Your task to perform on an android device: turn vacation reply on in the gmail app Image 0: 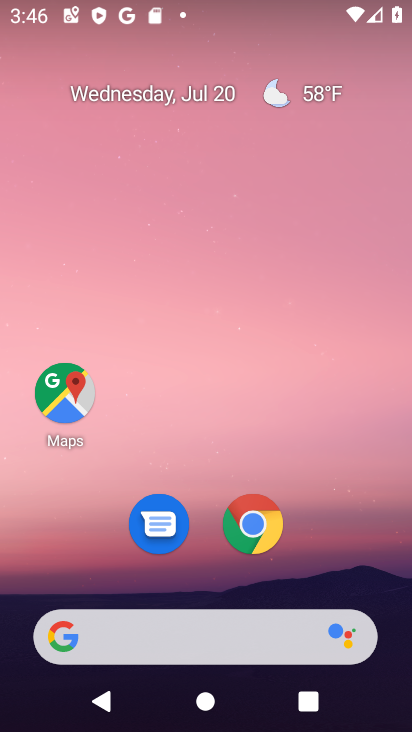
Step 0: drag from (330, 535) to (306, 18)
Your task to perform on an android device: turn vacation reply on in the gmail app Image 1: 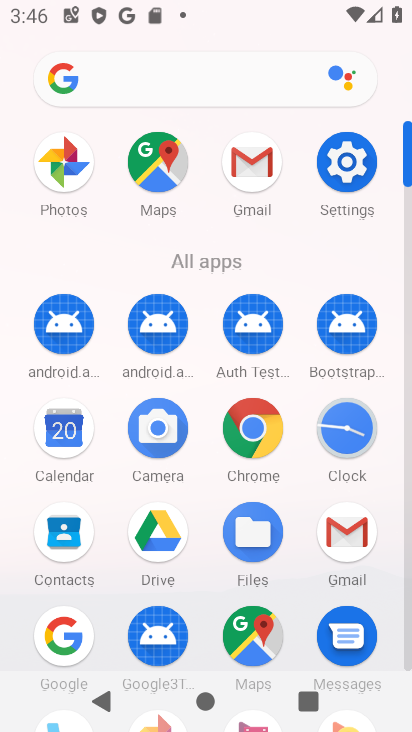
Step 1: click (266, 168)
Your task to perform on an android device: turn vacation reply on in the gmail app Image 2: 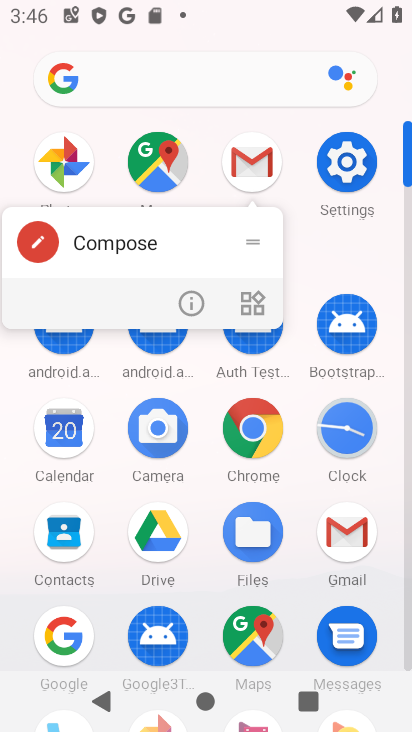
Step 2: click (266, 163)
Your task to perform on an android device: turn vacation reply on in the gmail app Image 3: 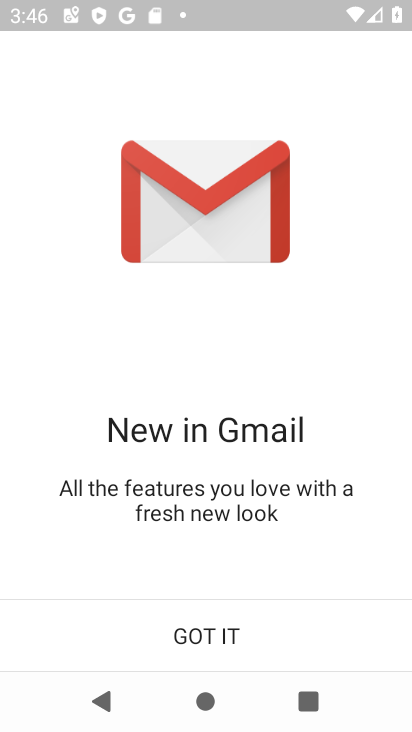
Step 3: click (216, 637)
Your task to perform on an android device: turn vacation reply on in the gmail app Image 4: 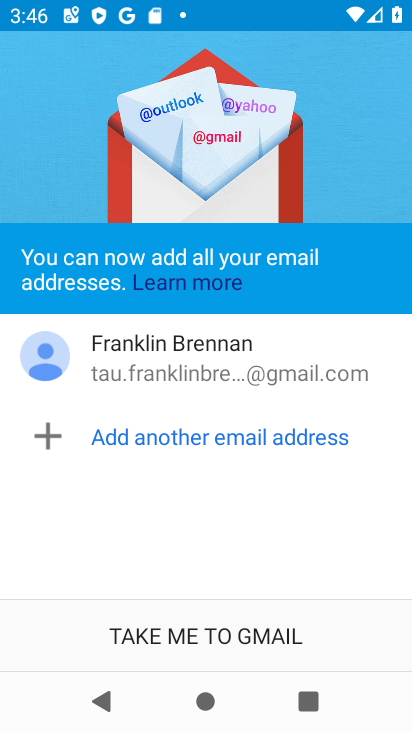
Step 4: click (217, 637)
Your task to perform on an android device: turn vacation reply on in the gmail app Image 5: 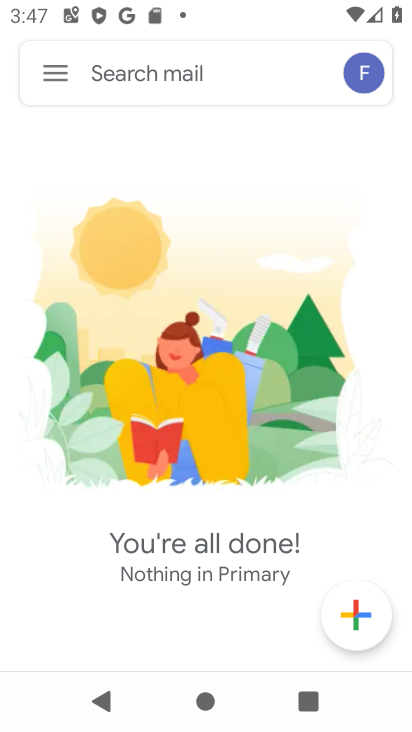
Step 5: click (61, 78)
Your task to perform on an android device: turn vacation reply on in the gmail app Image 6: 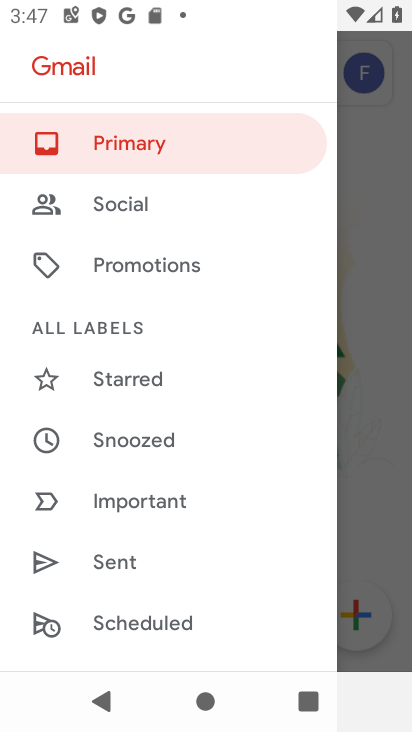
Step 6: drag from (151, 535) to (151, 106)
Your task to perform on an android device: turn vacation reply on in the gmail app Image 7: 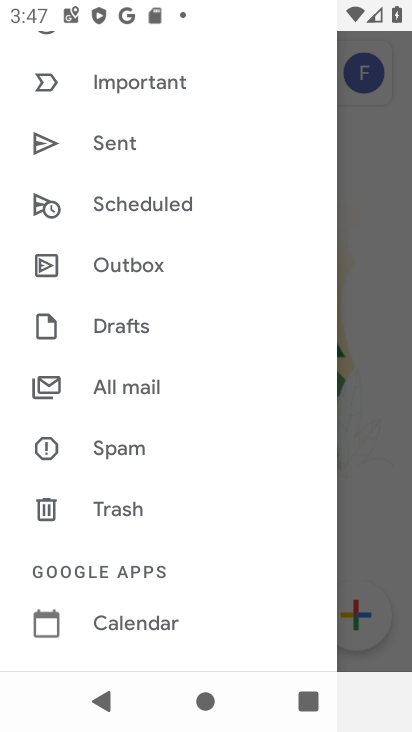
Step 7: drag from (177, 466) to (180, 126)
Your task to perform on an android device: turn vacation reply on in the gmail app Image 8: 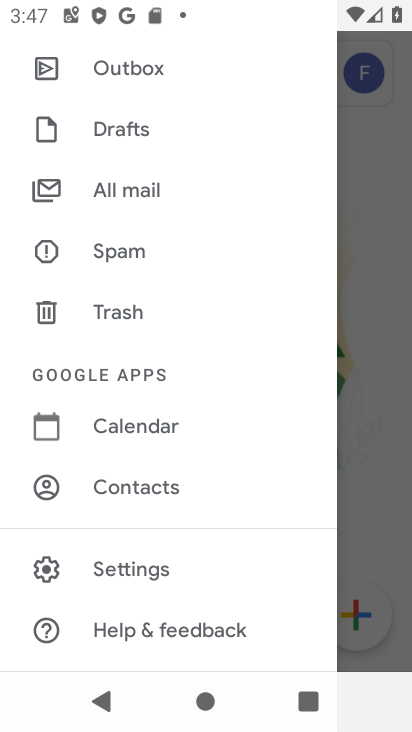
Step 8: click (152, 564)
Your task to perform on an android device: turn vacation reply on in the gmail app Image 9: 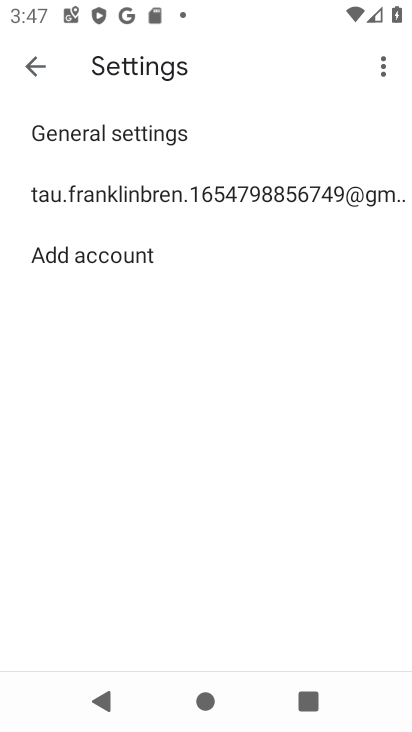
Step 9: click (283, 184)
Your task to perform on an android device: turn vacation reply on in the gmail app Image 10: 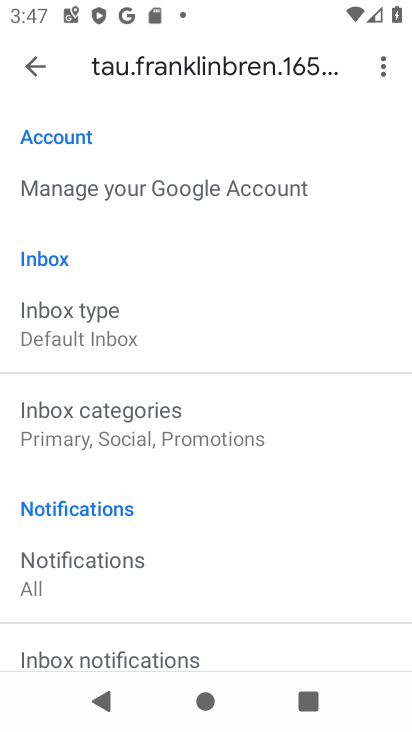
Step 10: drag from (215, 562) to (231, 146)
Your task to perform on an android device: turn vacation reply on in the gmail app Image 11: 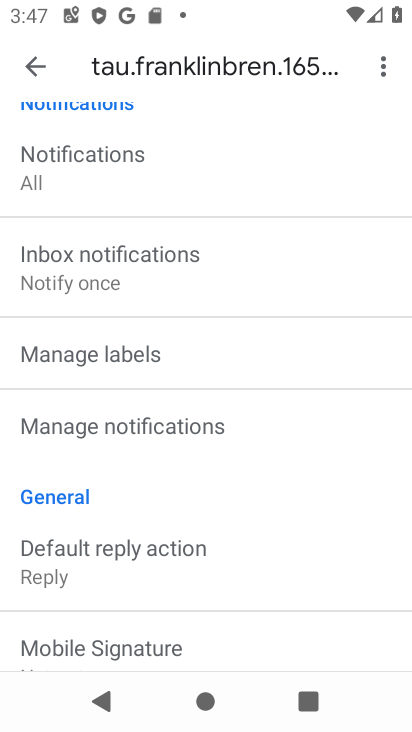
Step 11: drag from (214, 551) to (251, 160)
Your task to perform on an android device: turn vacation reply on in the gmail app Image 12: 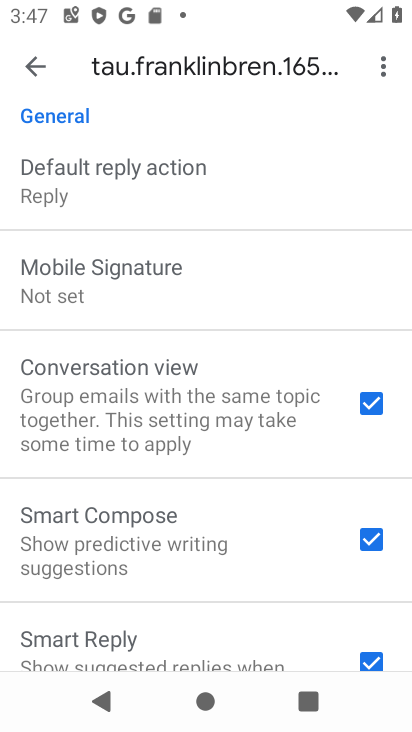
Step 12: drag from (214, 576) to (271, 201)
Your task to perform on an android device: turn vacation reply on in the gmail app Image 13: 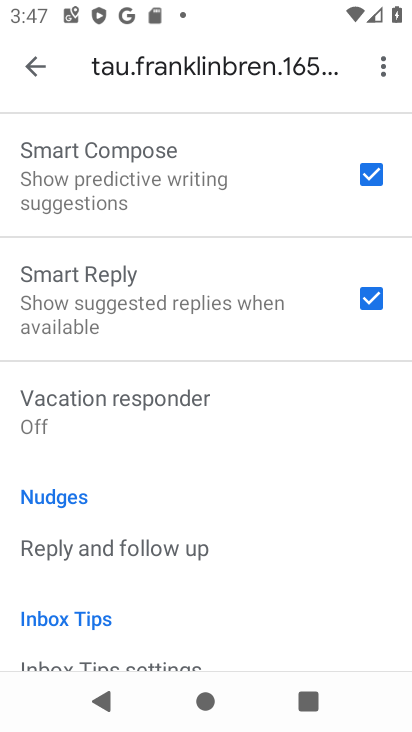
Step 13: click (223, 399)
Your task to perform on an android device: turn vacation reply on in the gmail app Image 14: 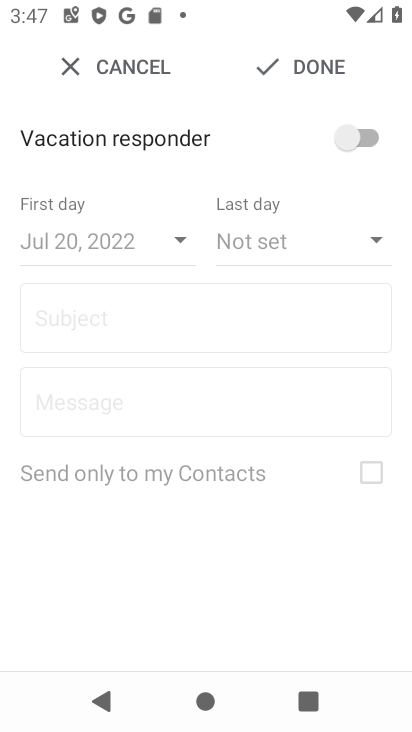
Step 14: click (369, 135)
Your task to perform on an android device: turn vacation reply on in the gmail app Image 15: 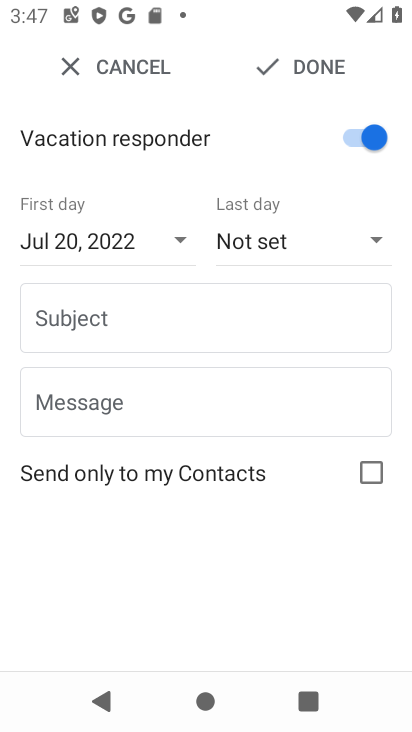
Step 15: task complete